Your task to perform on an android device: Open Amazon Image 0: 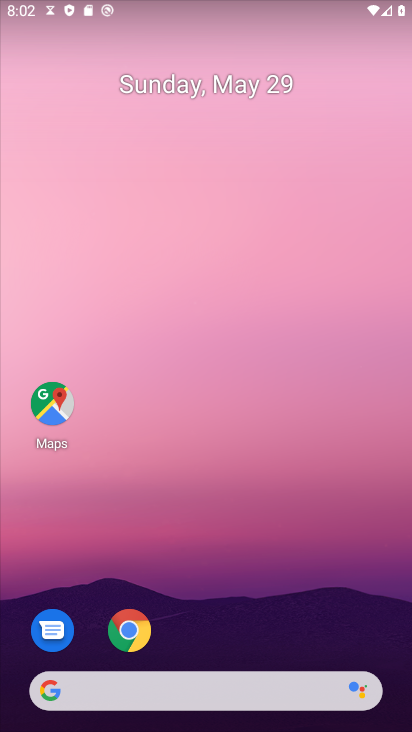
Step 0: click (137, 633)
Your task to perform on an android device: Open Amazon Image 1: 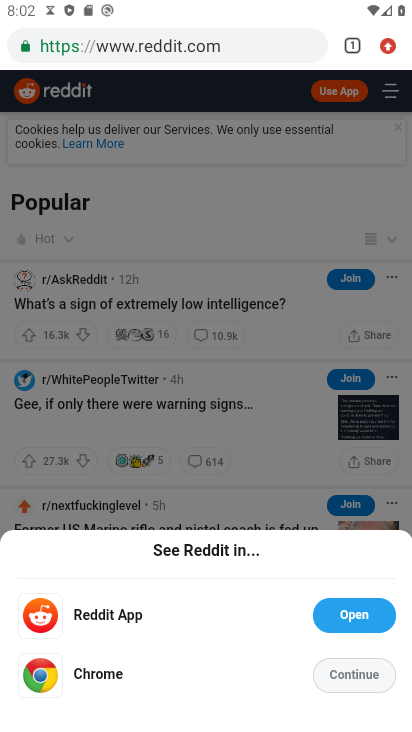
Step 1: click (249, 269)
Your task to perform on an android device: Open Amazon Image 2: 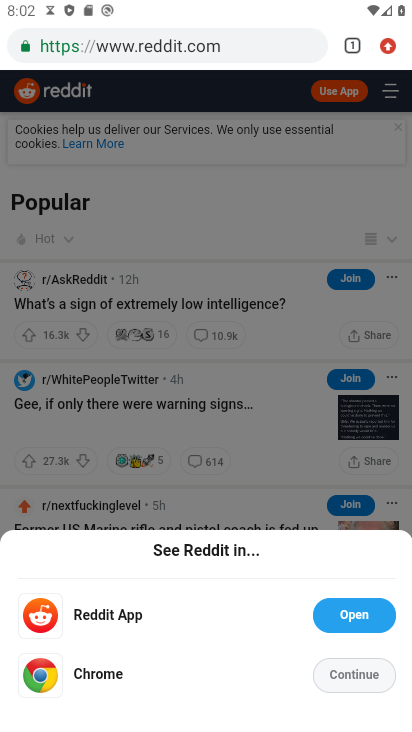
Step 2: click (353, 41)
Your task to perform on an android device: Open Amazon Image 3: 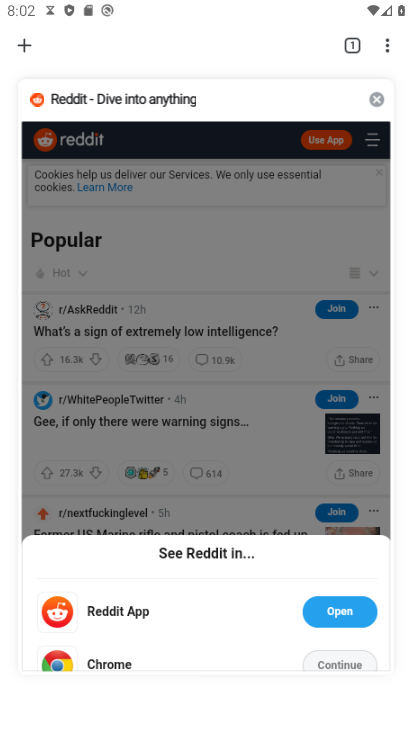
Step 3: click (25, 48)
Your task to perform on an android device: Open Amazon Image 4: 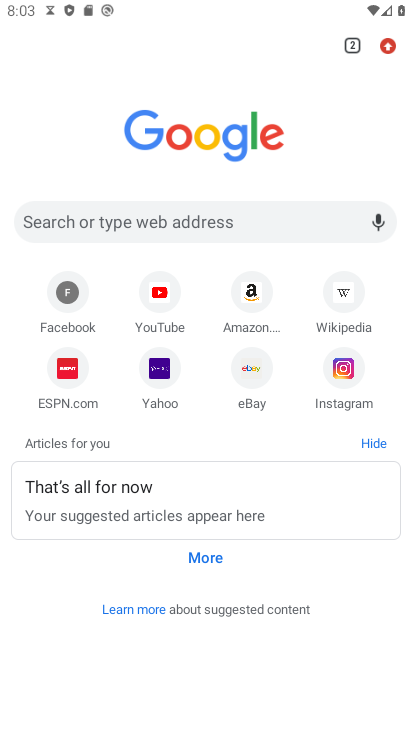
Step 4: click (250, 291)
Your task to perform on an android device: Open Amazon Image 5: 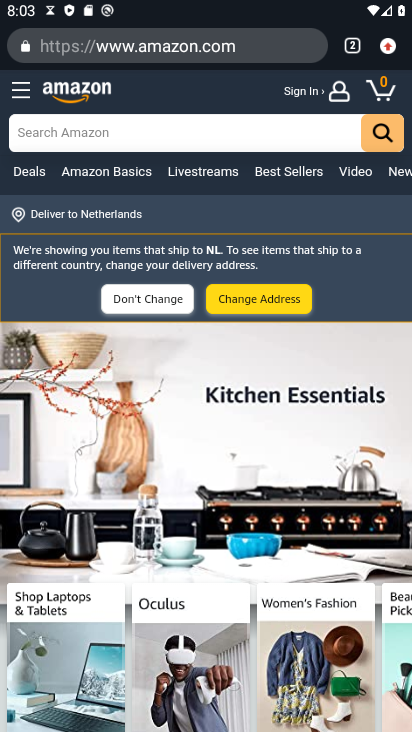
Step 5: task complete